Your task to perform on an android device: turn off translation in the chrome app Image 0: 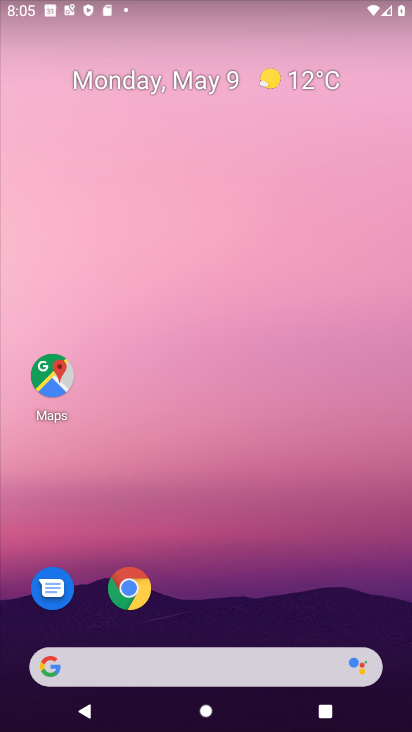
Step 0: drag from (180, 671) to (325, 109)
Your task to perform on an android device: turn off translation in the chrome app Image 1: 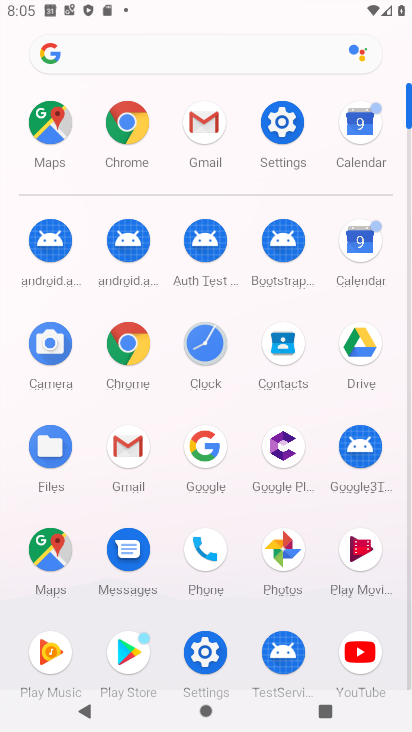
Step 1: click (128, 134)
Your task to perform on an android device: turn off translation in the chrome app Image 2: 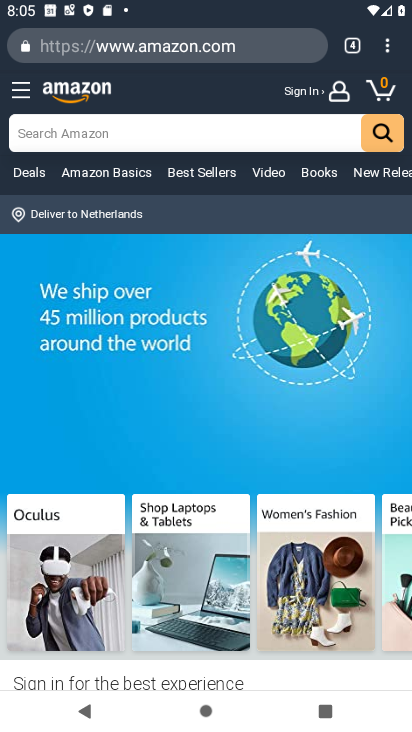
Step 2: drag from (386, 48) to (237, 555)
Your task to perform on an android device: turn off translation in the chrome app Image 3: 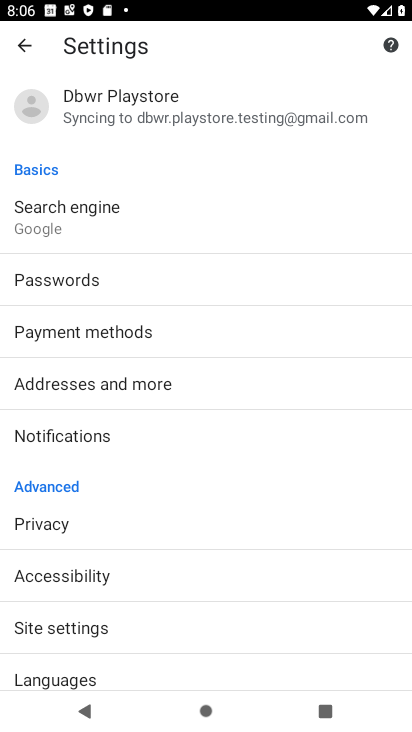
Step 3: click (86, 680)
Your task to perform on an android device: turn off translation in the chrome app Image 4: 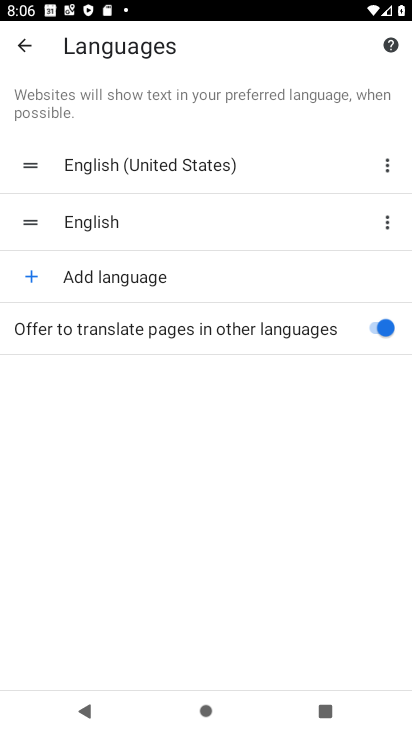
Step 4: click (371, 330)
Your task to perform on an android device: turn off translation in the chrome app Image 5: 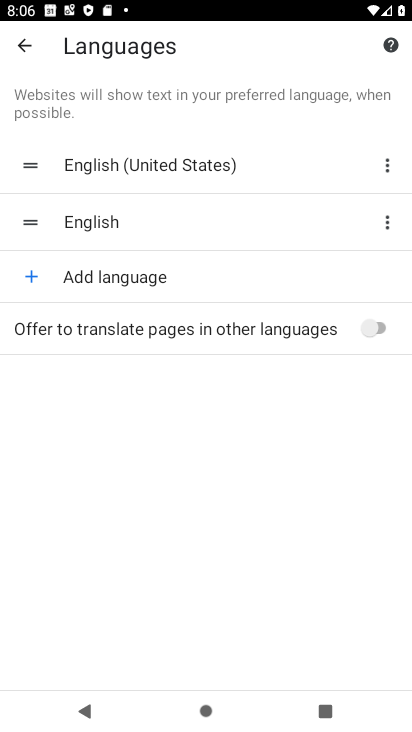
Step 5: task complete